Your task to perform on an android device: What's the weather going to be tomorrow? Image 0: 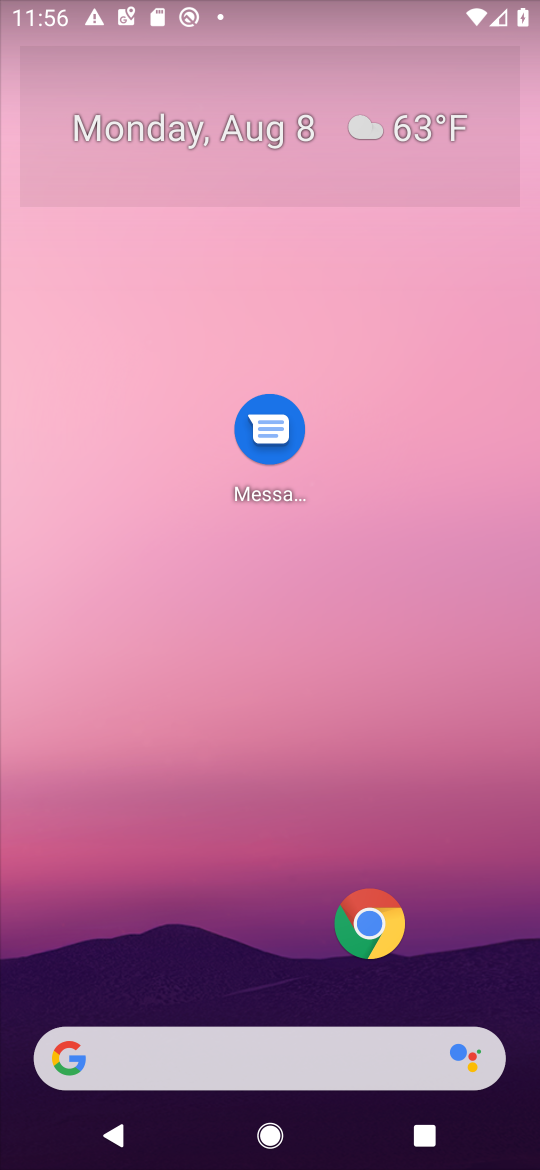
Step 0: click (103, 1046)
Your task to perform on an android device: What's the weather going to be tomorrow? Image 1: 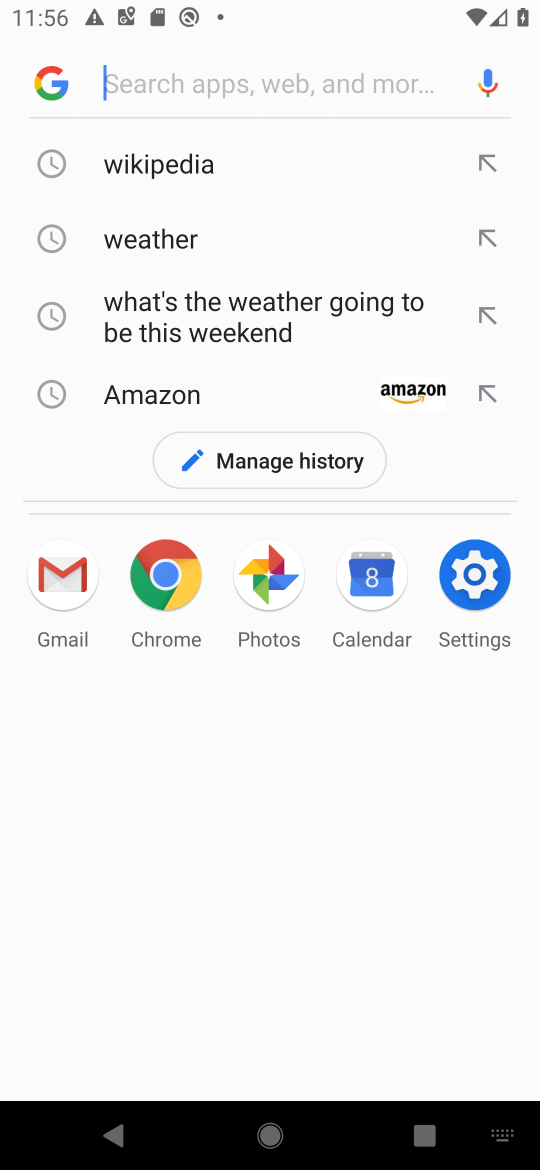
Step 1: type "What's the weather going to be tomorrow?"
Your task to perform on an android device: What's the weather going to be tomorrow? Image 2: 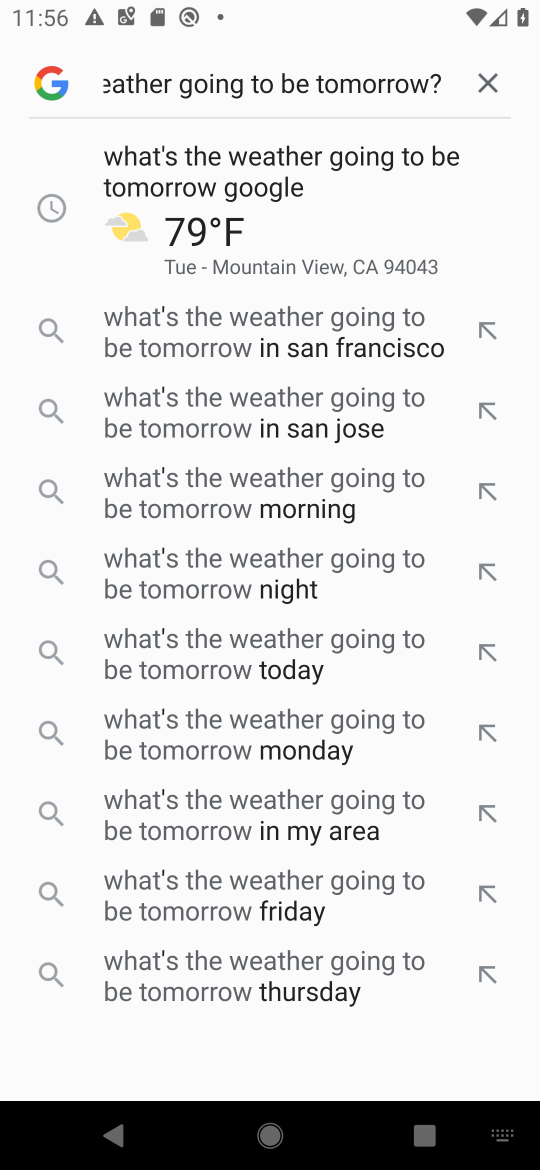
Step 2: task complete